Your task to perform on an android device: change the clock style Image 0: 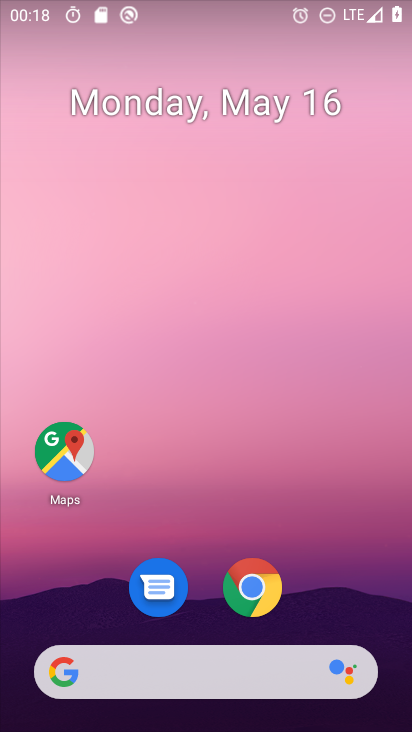
Step 0: drag from (210, 609) to (248, 201)
Your task to perform on an android device: change the clock style Image 1: 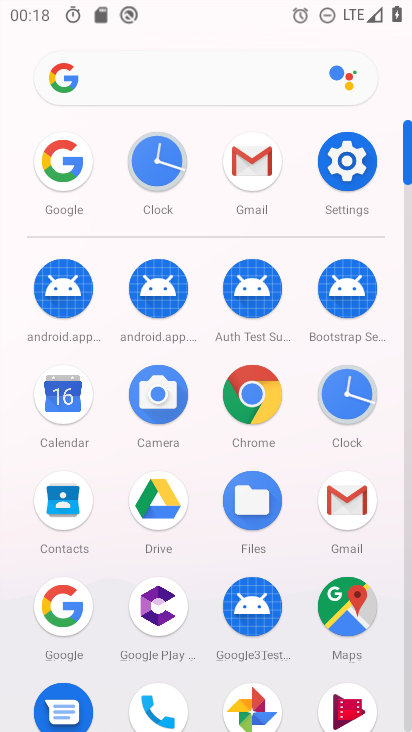
Step 1: click (340, 406)
Your task to perform on an android device: change the clock style Image 2: 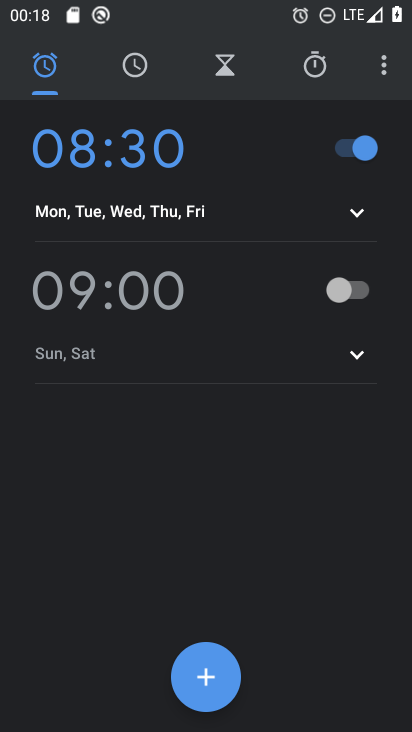
Step 2: click (381, 61)
Your task to perform on an android device: change the clock style Image 3: 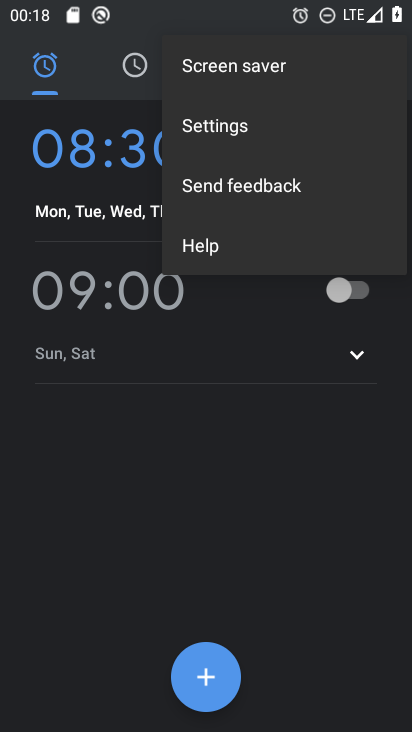
Step 3: click (225, 128)
Your task to perform on an android device: change the clock style Image 4: 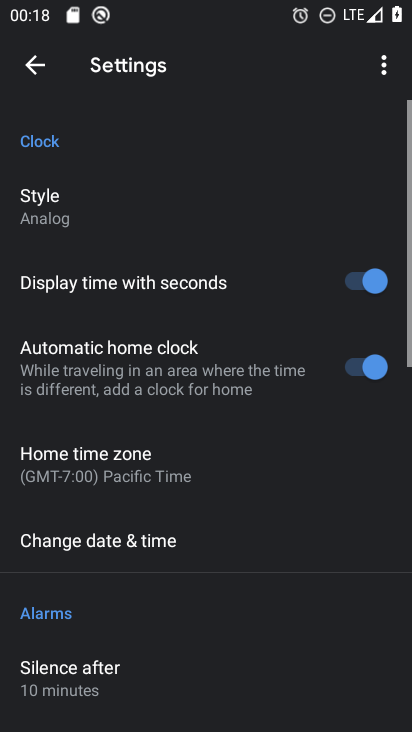
Step 4: click (81, 222)
Your task to perform on an android device: change the clock style Image 5: 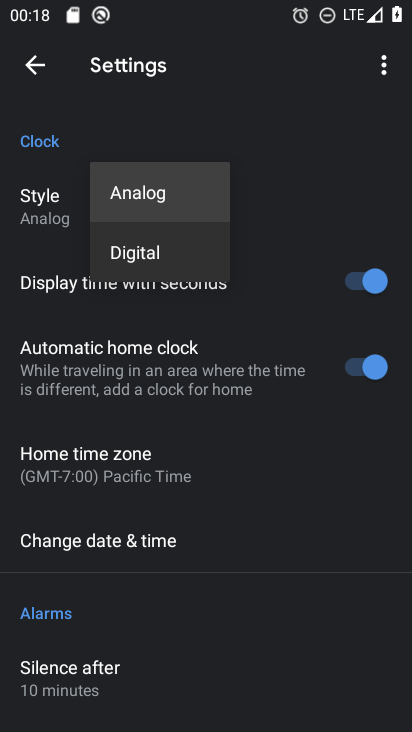
Step 5: click (105, 242)
Your task to perform on an android device: change the clock style Image 6: 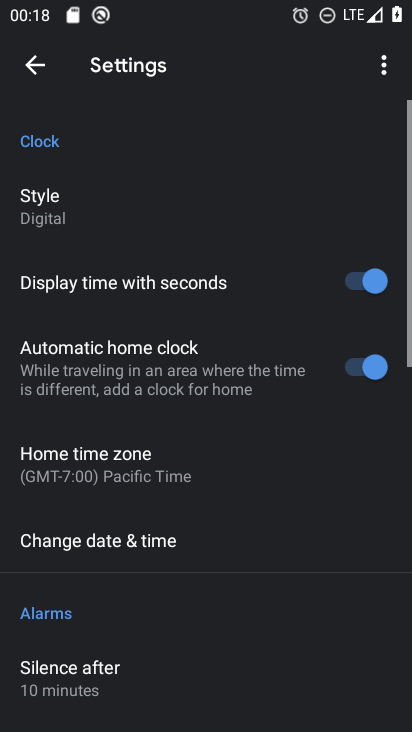
Step 6: task complete